Your task to perform on an android device: turn on wifi Image 0: 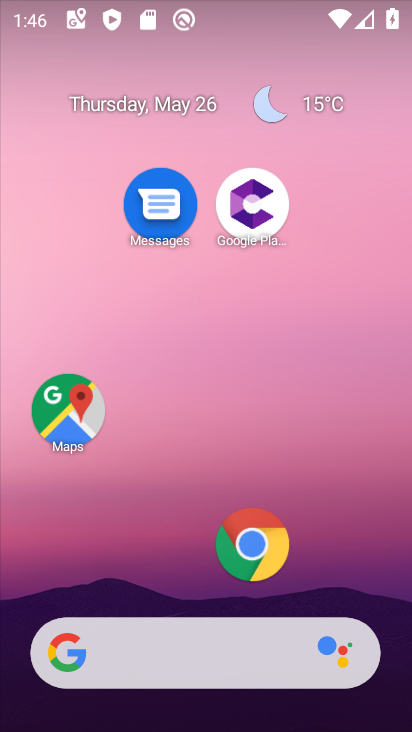
Step 0: drag from (206, 371) to (198, 99)
Your task to perform on an android device: turn on wifi Image 1: 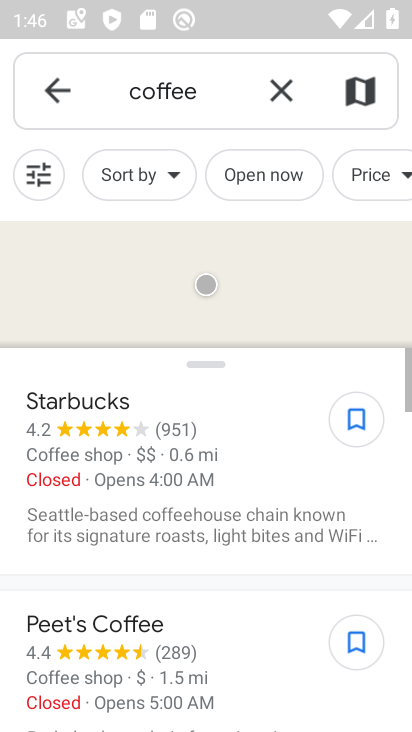
Step 1: drag from (256, 24) to (216, 379)
Your task to perform on an android device: turn on wifi Image 2: 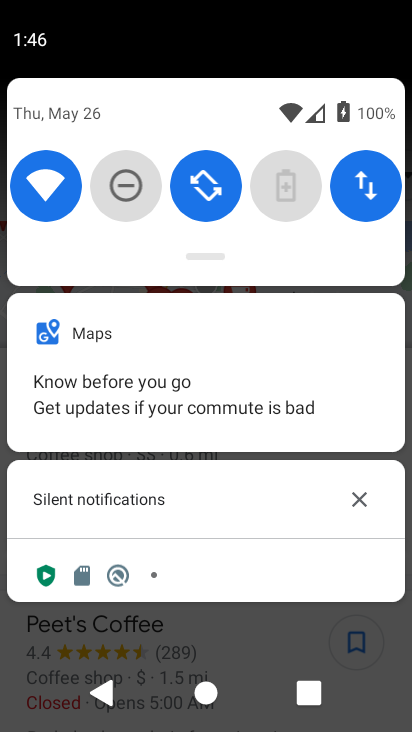
Step 2: click (61, 190)
Your task to perform on an android device: turn on wifi Image 3: 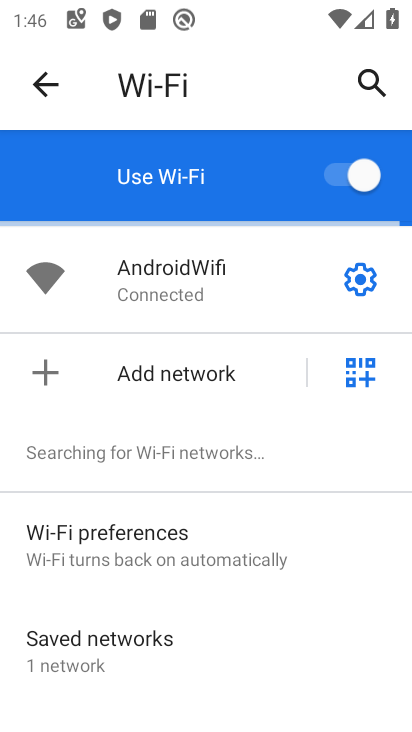
Step 3: task complete